Your task to perform on an android device: Open settings Image 0: 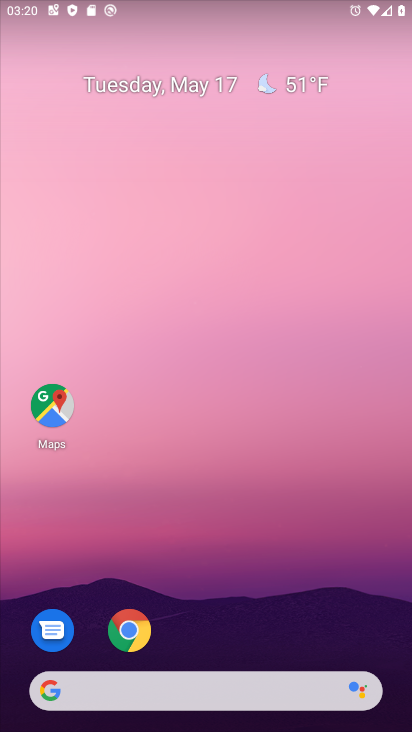
Step 0: click (129, 627)
Your task to perform on an android device: Open settings Image 1: 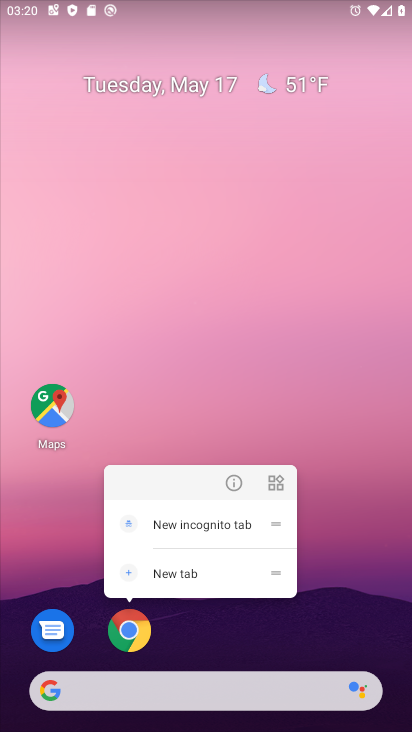
Step 1: click (125, 627)
Your task to perform on an android device: Open settings Image 2: 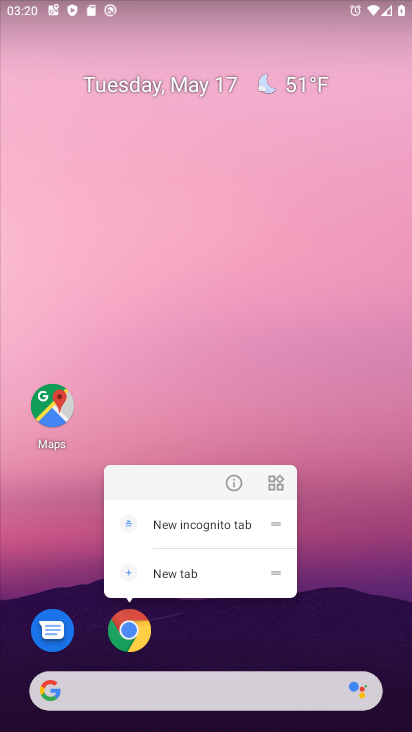
Step 2: click (133, 625)
Your task to perform on an android device: Open settings Image 3: 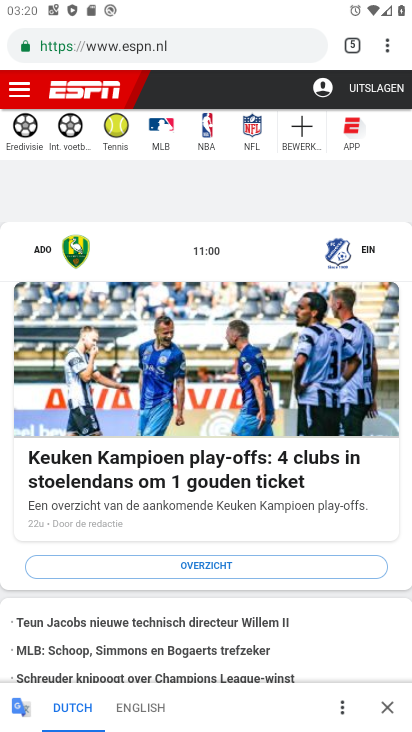
Step 3: task complete